Your task to perform on an android device: set the timer Image 0: 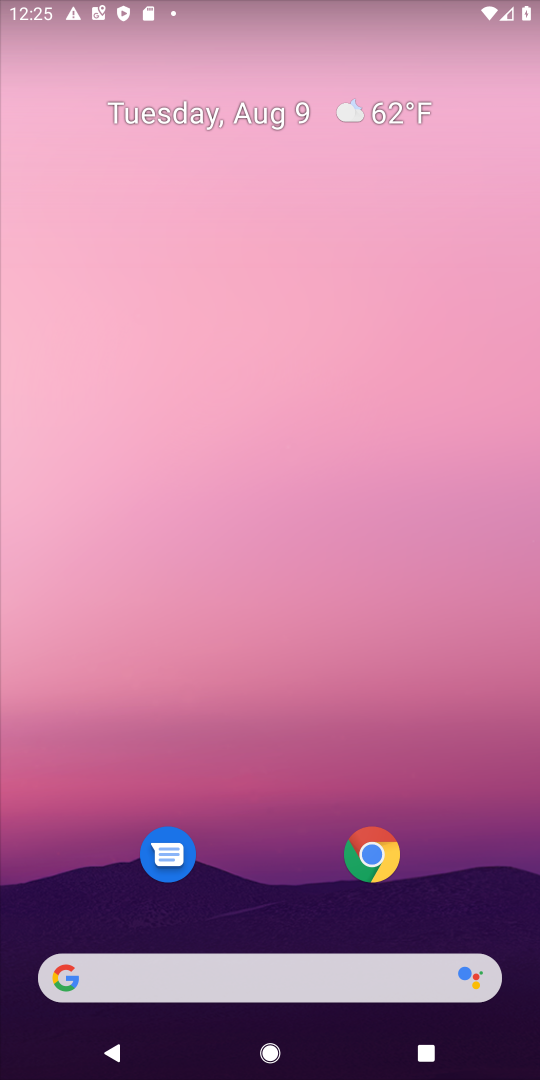
Step 0: drag from (269, 801) to (369, 13)
Your task to perform on an android device: set the timer Image 1: 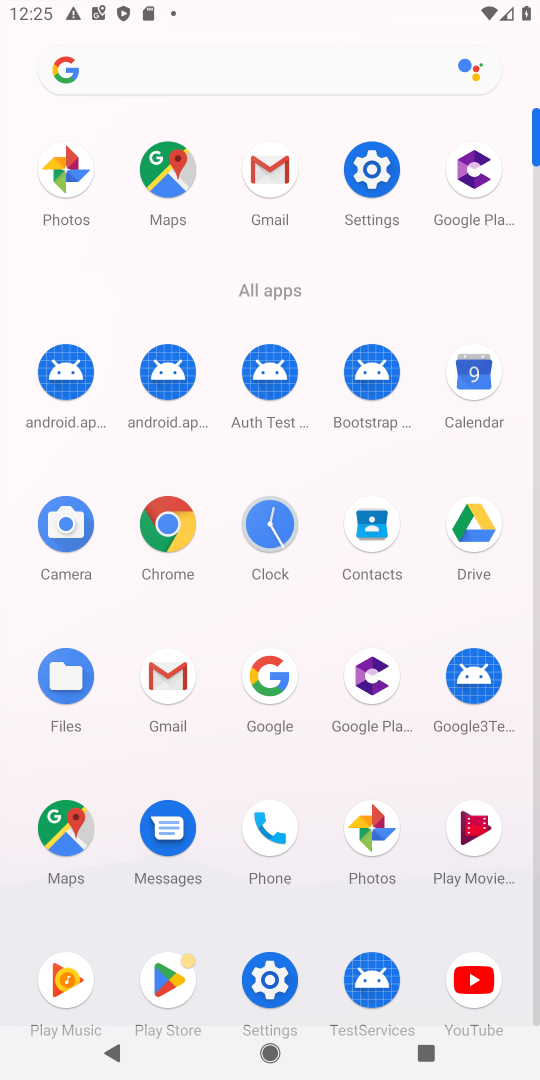
Step 1: click (267, 532)
Your task to perform on an android device: set the timer Image 2: 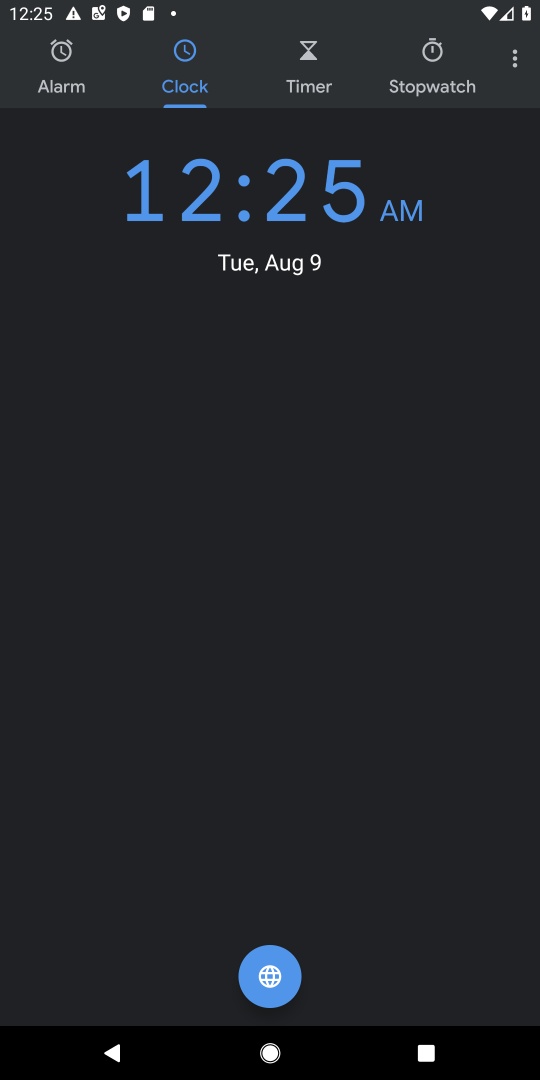
Step 2: click (309, 62)
Your task to perform on an android device: set the timer Image 3: 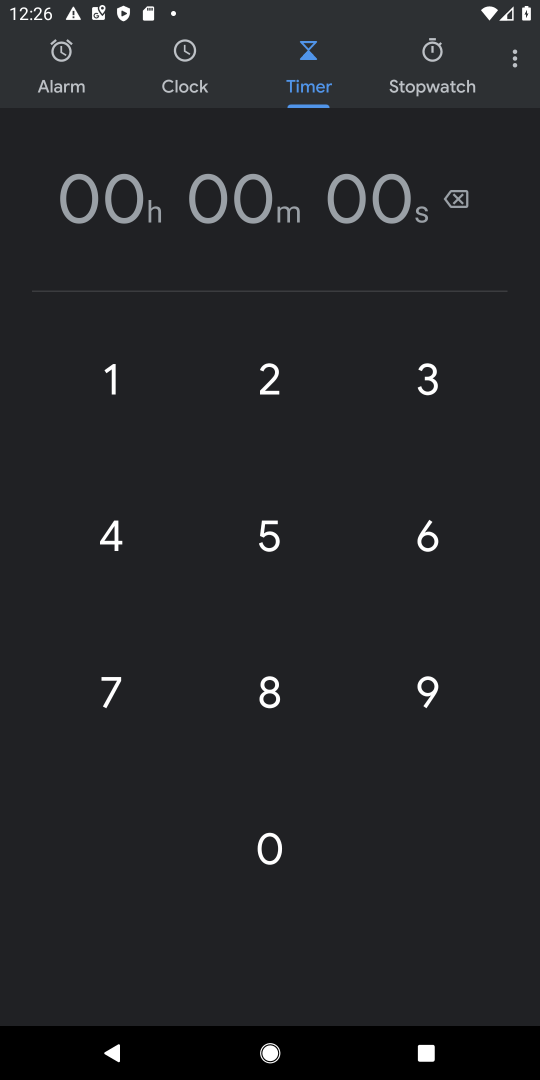
Step 3: click (273, 366)
Your task to perform on an android device: set the timer Image 4: 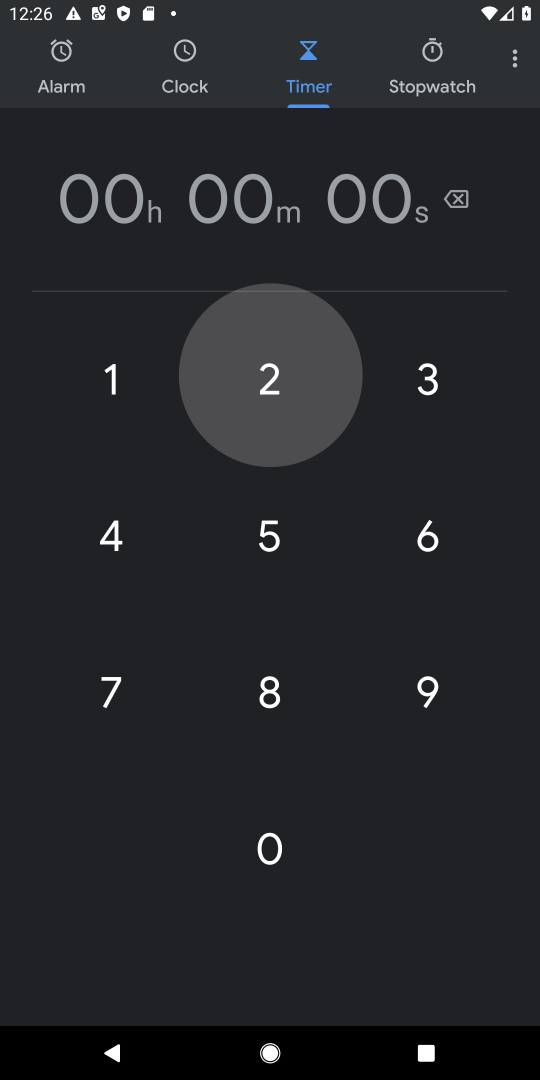
Step 4: click (457, 378)
Your task to perform on an android device: set the timer Image 5: 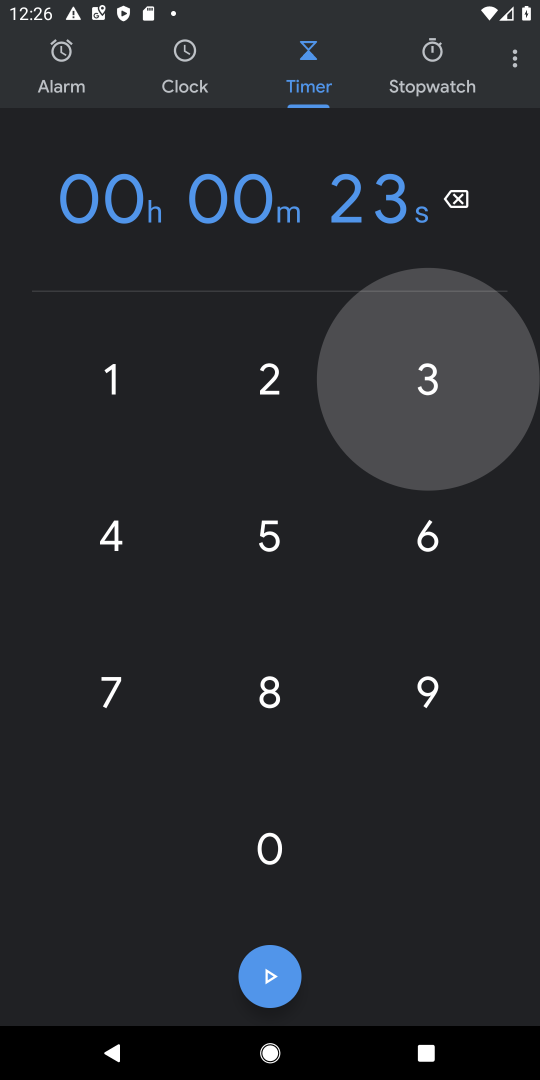
Step 5: click (253, 526)
Your task to perform on an android device: set the timer Image 6: 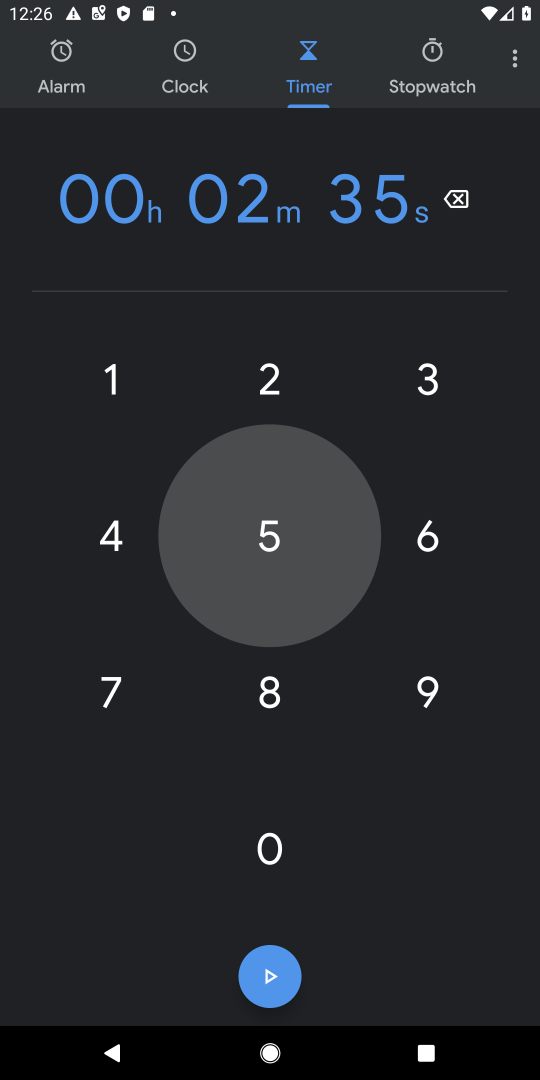
Step 6: click (449, 535)
Your task to perform on an android device: set the timer Image 7: 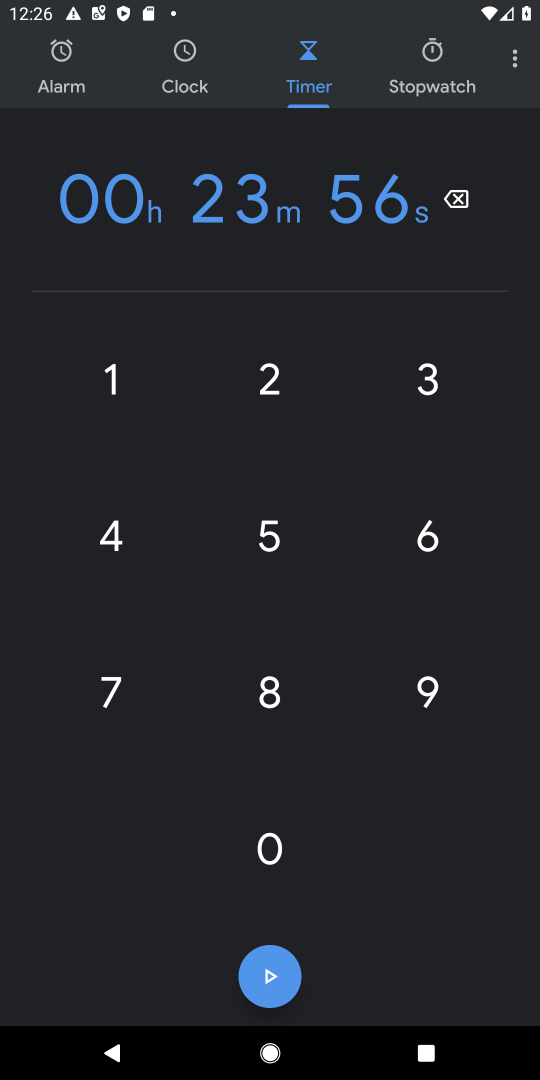
Step 7: click (156, 371)
Your task to perform on an android device: set the timer Image 8: 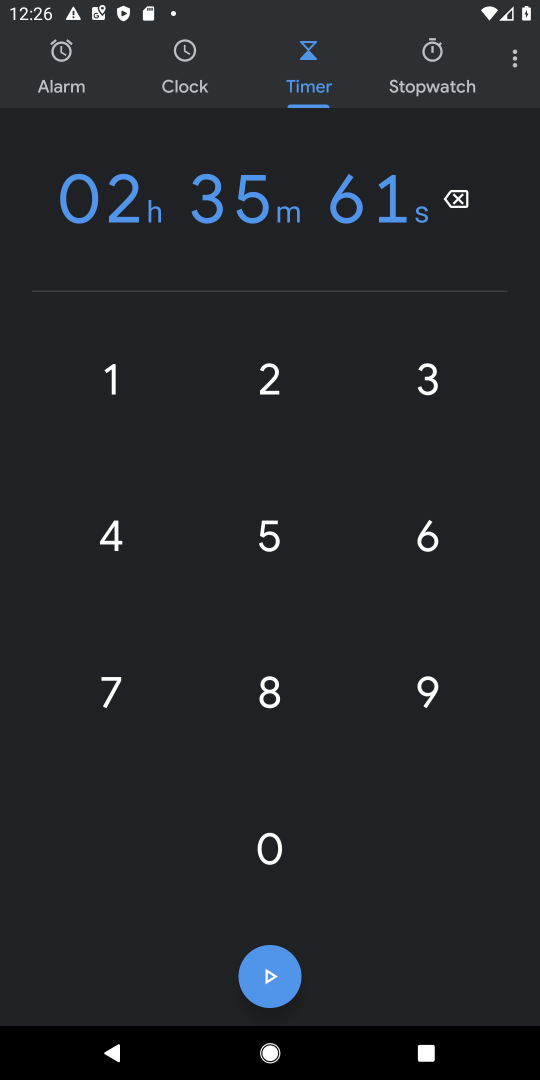
Step 8: task complete